Your task to perform on an android device: Open calendar and show me the second week of next month Image 0: 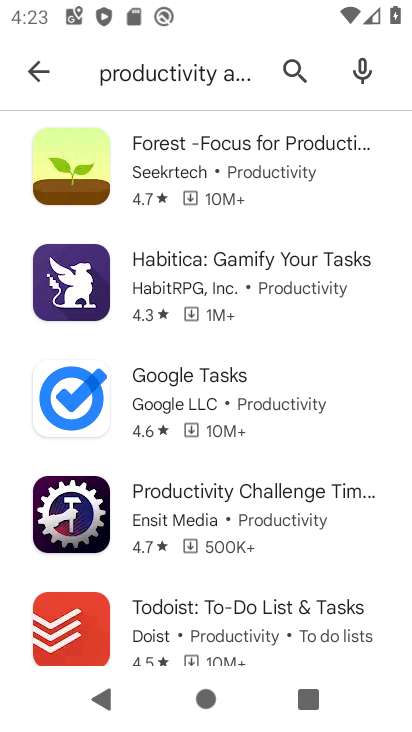
Step 0: press home button
Your task to perform on an android device: Open calendar and show me the second week of next month Image 1: 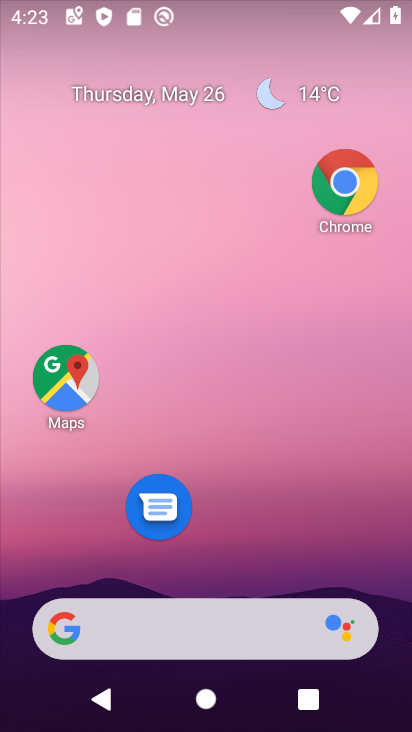
Step 1: drag from (287, 481) to (320, 69)
Your task to perform on an android device: Open calendar and show me the second week of next month Image 2: 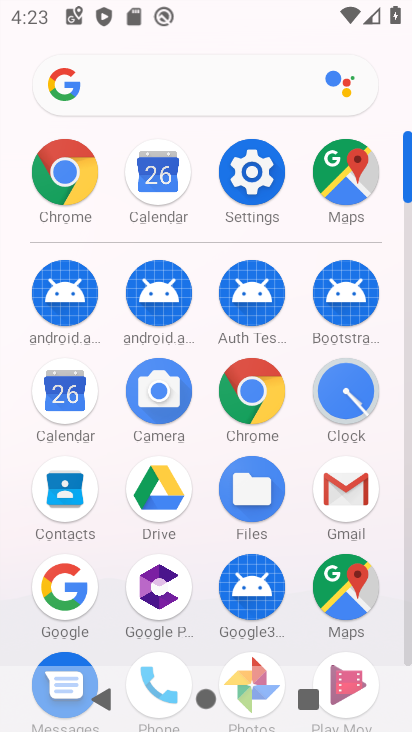
Step 2: click (60, 396)
Your task to perform on an android device: Open calendar and show me the second week of next month Image 3: 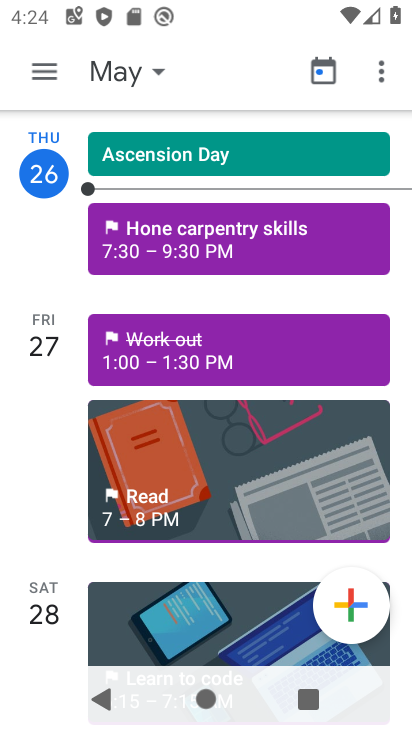
Step 3: click (117, 77)
Your task to perform on an android device: Open calendar and show me the second week of next month Image 4: 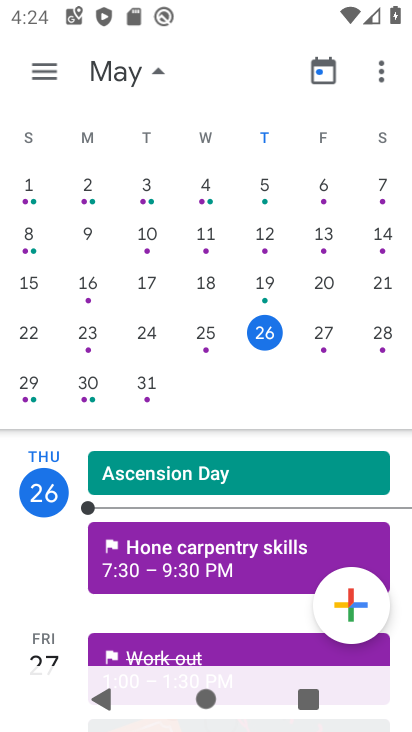
Step 4: drag from (353, 261) to (45, 242)
Your task to perform on an android device: Open calendar and show me the second week of next month Image 5: 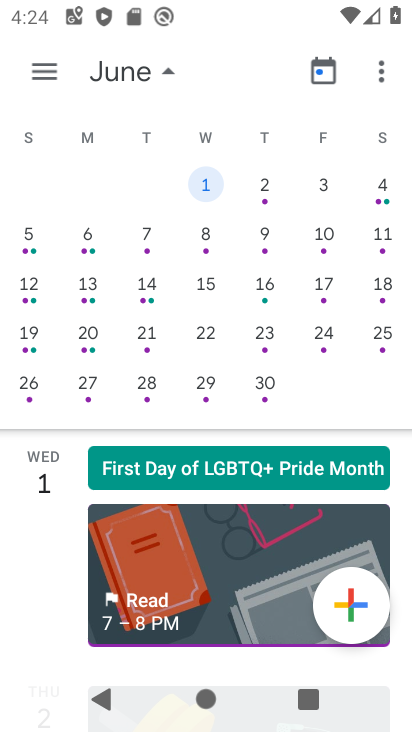
Step 5: click (323, 233)
Your task to perform on an android device: Open calendar and show me the second week of next month Image 6: 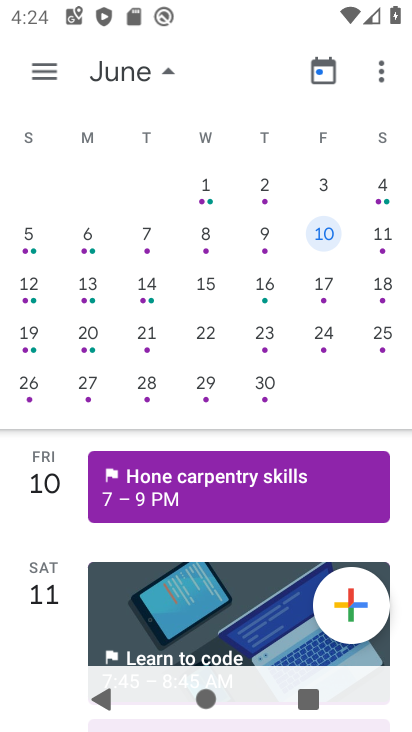
Step 6: task complete